Your task to perform on an android device: clear all cookies in the chrome app Image 0: 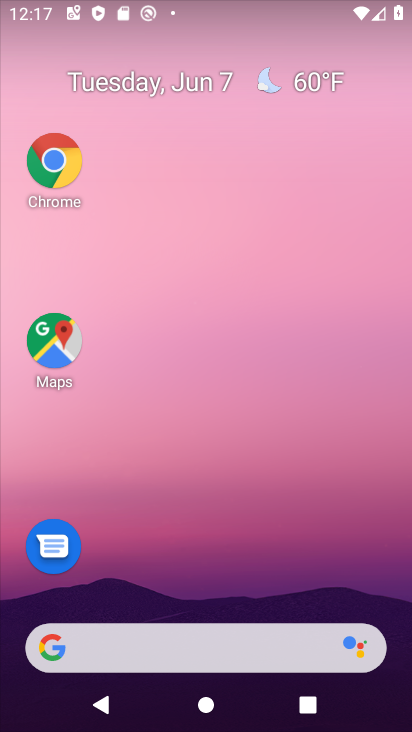
Step 0: drag from (215, 562) to (302, 301)
Your task to perform on an android device: clear all cookies in the chrome app Image 1: 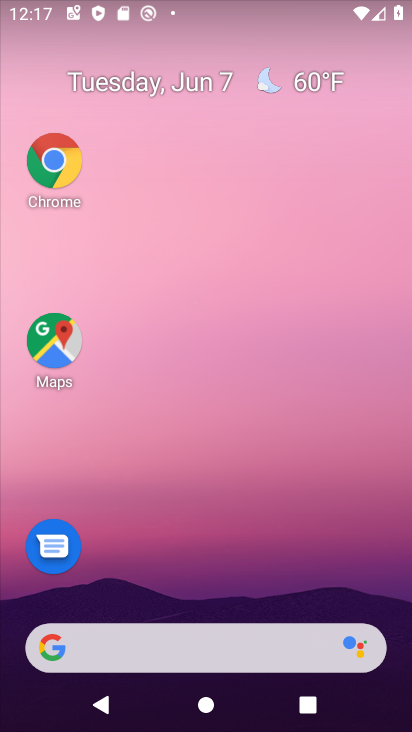
Step 1: click (44, 150)
Your task to perform on an android device: clear all cookies in the chrome app Image 2: 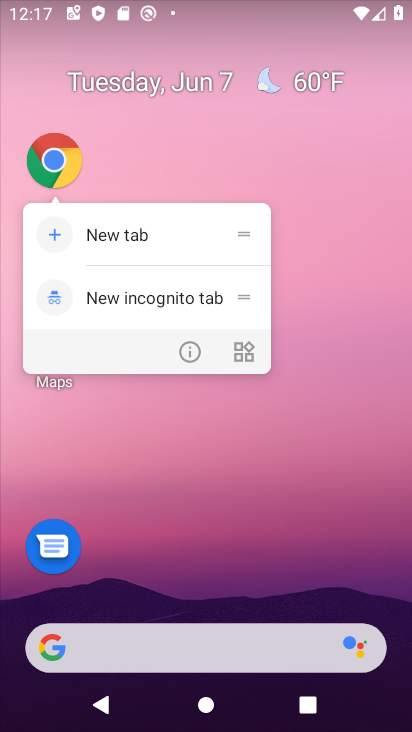
Step 2: click (193, 345)
Your task to perform on an android device: clear all cookies in the chrome app Image 3: 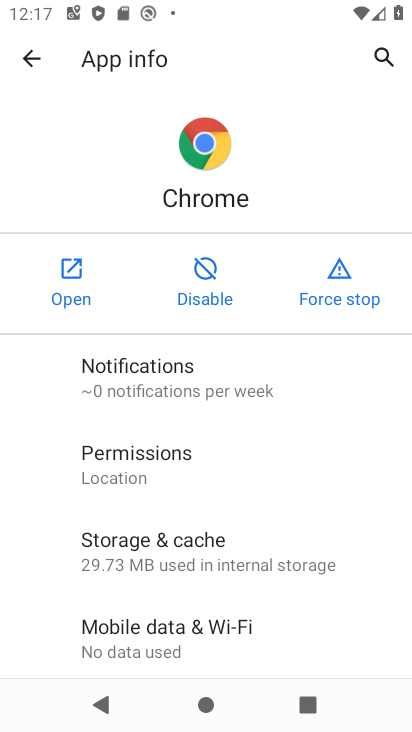
Step 3: click (48, 285)
Your task to perform on an android device: clear all cookies in the chrome app Image 4: 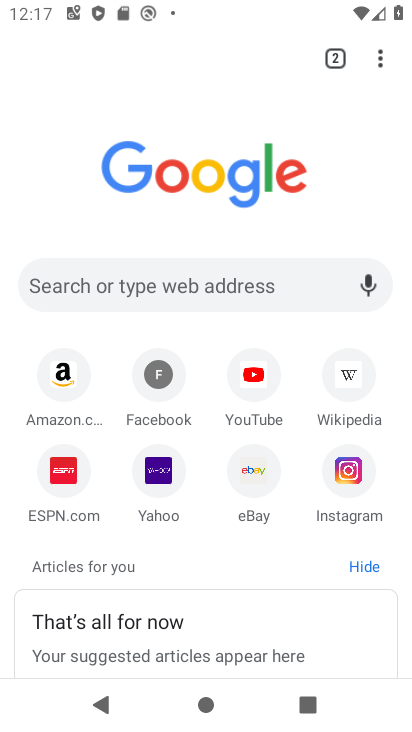
Step 4: click (392, 54)
Your task to perform on an android device: clear all cookies in the chrome app Image 5: 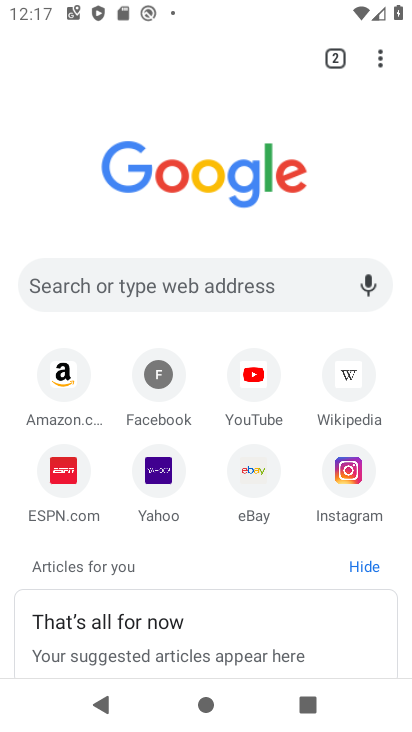
Step 5: click (392, 56)
Your task to perform on an android device: clear all cookies in the chrome app Image 6: 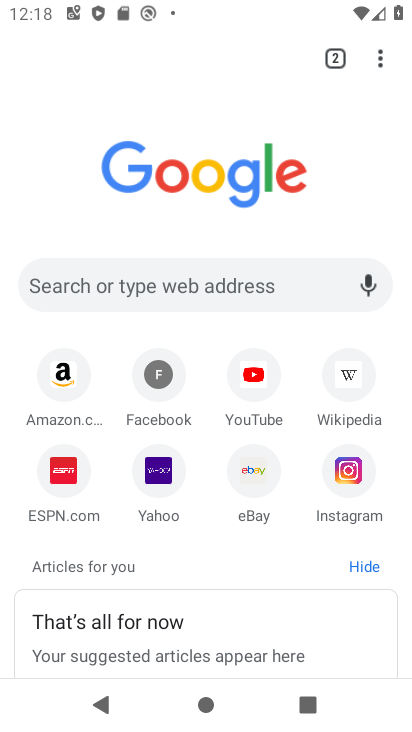
Step 6: click (385, 57)
Your task to perform on an android device: clear all cookies in the chrome app Image 7: 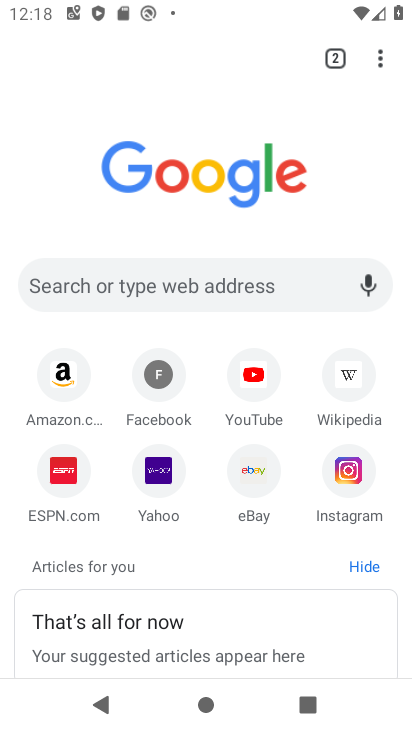
Step 7: click (377, 42)
Your task to perform on an android device: clear all cookies in the chrome app Image 8: 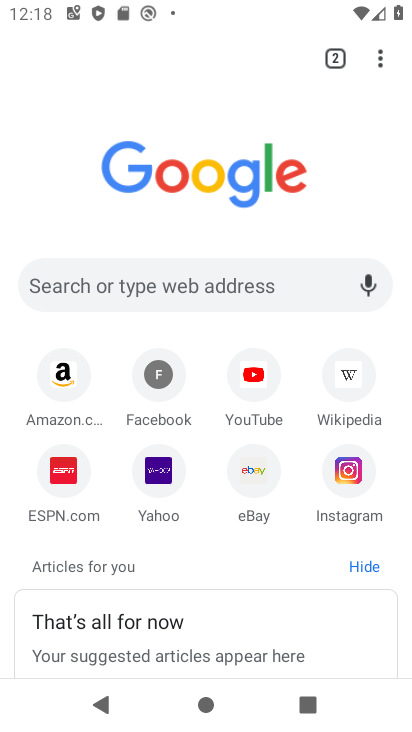
Step 8: click (378, 41)
Your task to perform on an android device: clear all cookies in the chrome app Image 9: 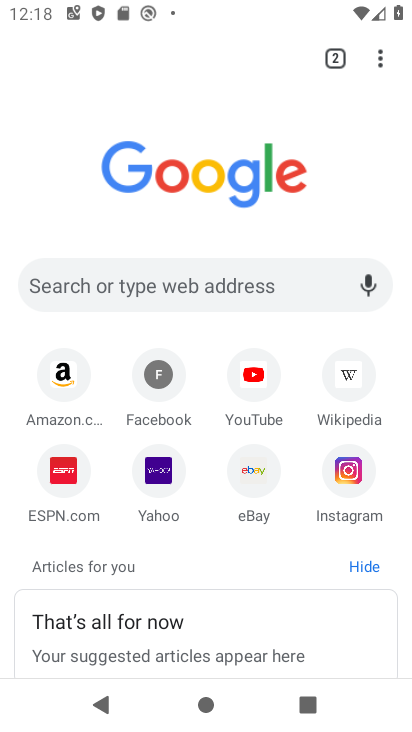
Step 9: drag from (368, 53) to (294, 324)
Your task to perform on an android device: clear all cookies in the chrome app Image 10: 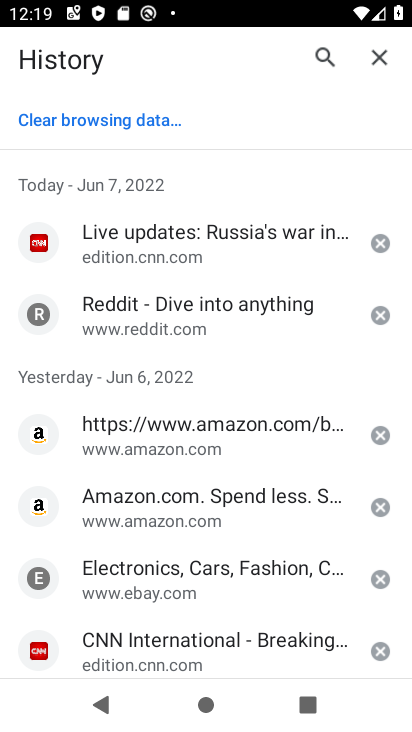
Step 10: click (69, 135)
Your task to perform on an android device: clear all cookies in the chrome app Image 11: 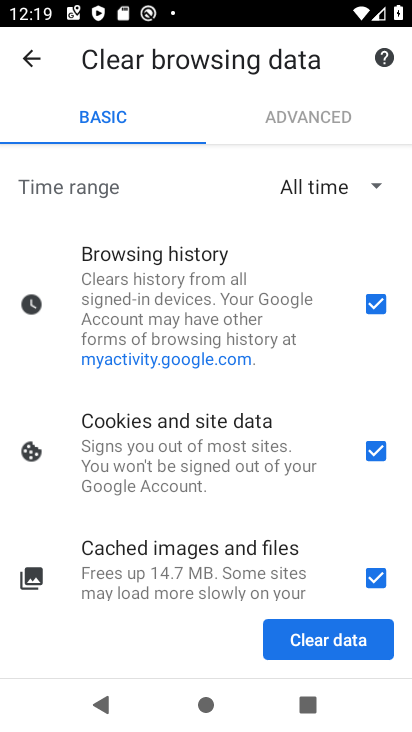
Step 11: click (345, 299)
Your task to perform on an android device: clear all cookies in the chrome app Image 12: 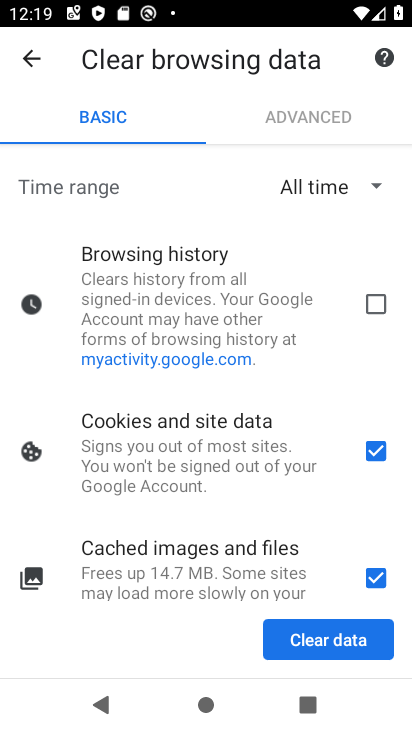
Step 12: click (363, 636)
Your task to perform on an android device: clear all cookies in the chrome app Image 13: 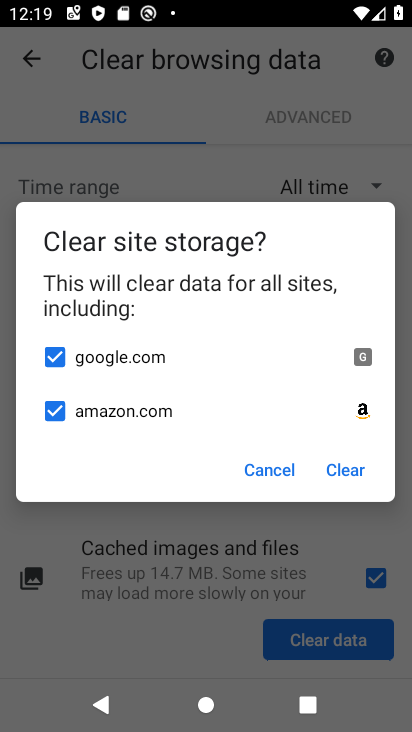
Step 13: click (366, 468)
Your task to perform on an android device: clear all cookies in the chrome app Image 14: 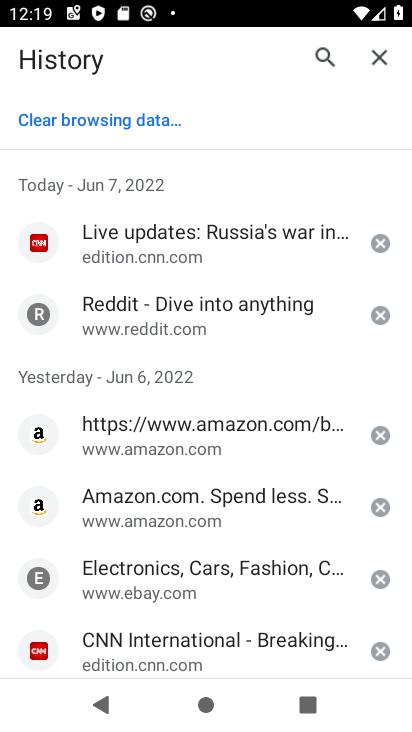
Step 14: task complete